Your task to perform on an android device: open a bookmark in the chrome app Image 0: 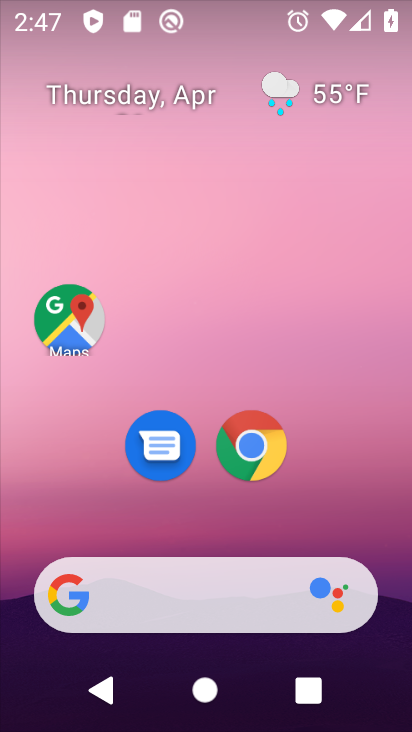
Step 0: click (252, 444)
Your task to perform on an android device: open a bookmark in the chrome app Image 1: 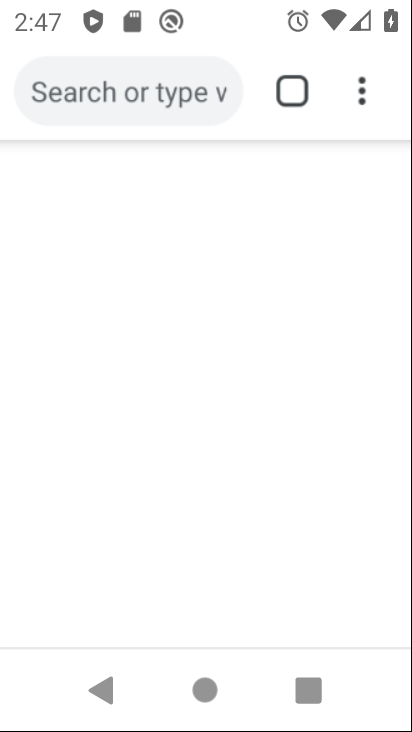
Step 1: click (361, 96)
Your task to perform on an android device: open a bookmark in the chrome app Image 2: 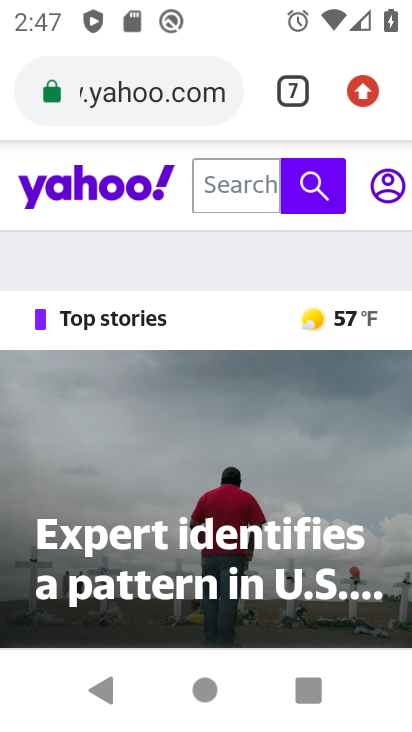
Step 2: drag from (359, 87) to (176, 454)
Your task to perform on an android device: open a bookmark in the chrome app Image 3: 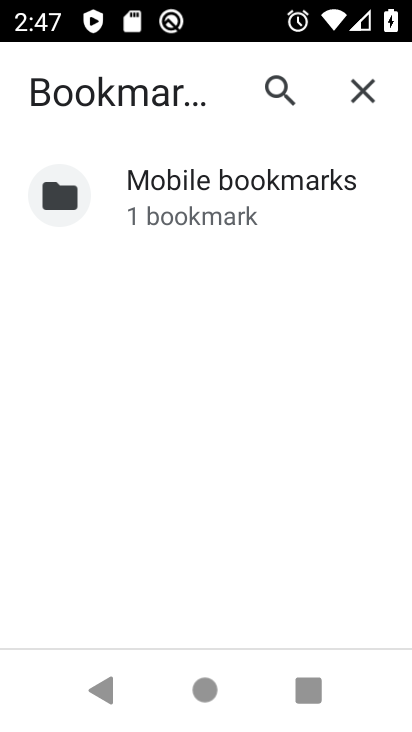
Step 3: click (189, 188)
Your task to perform on an android device: open a bookmark in the chrome app Image 4: 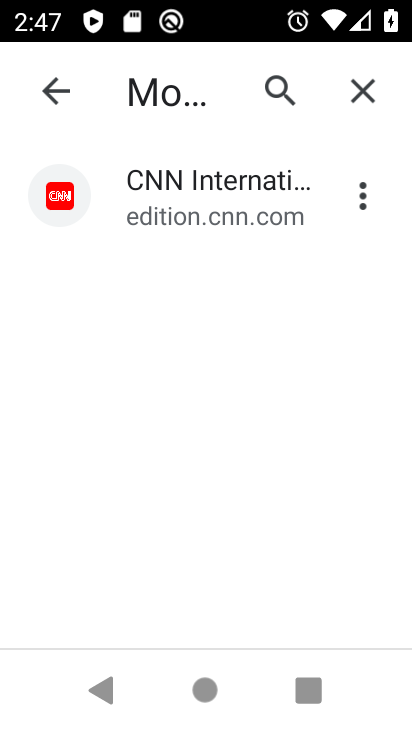
Step 4: click (187, 192)
Your task to perform on an android device: open a bookmark in the chrome app Image 5: 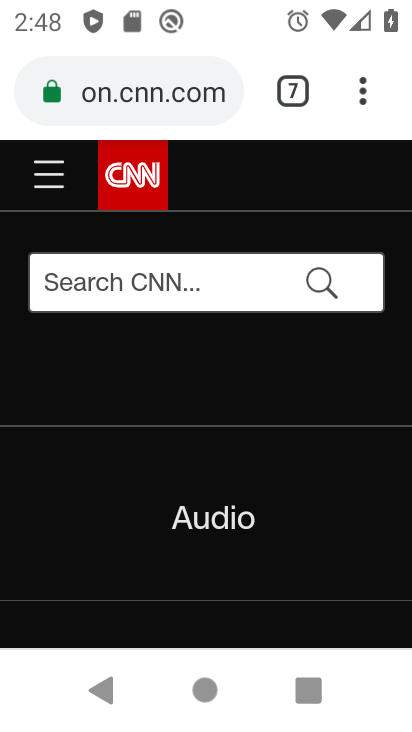
Step 5: task complete